Your task to perform on an android device: Show me popular games on the Play Store Image 0: 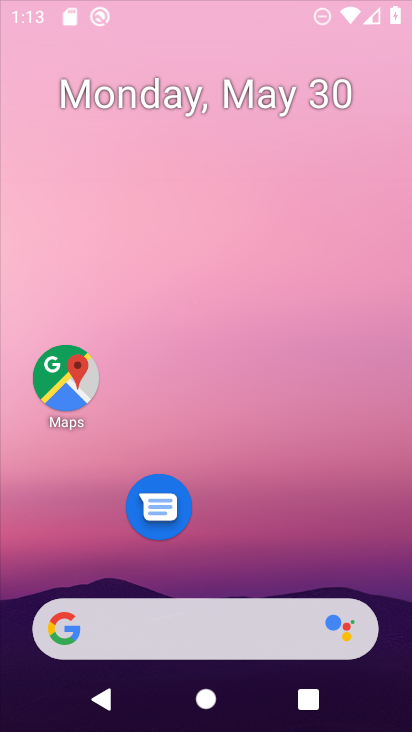
Step 0: click (311, 104)
Your task to perform on an android device: Show me popular games on the Play Store Image 1: 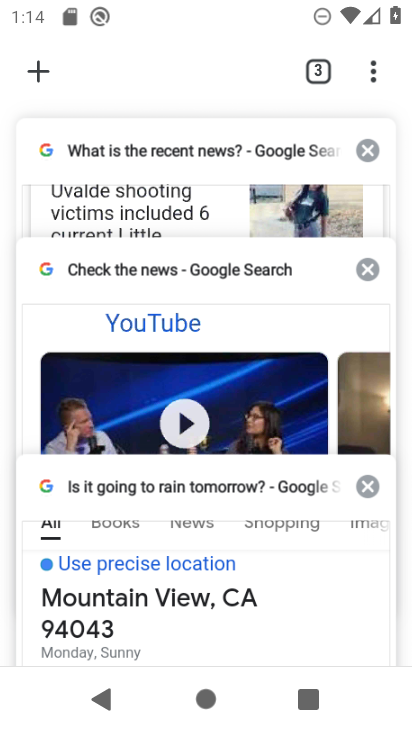
Step 1: press home button
Your task to perform on an android device: Show me popular games on the Play Store Image 2: 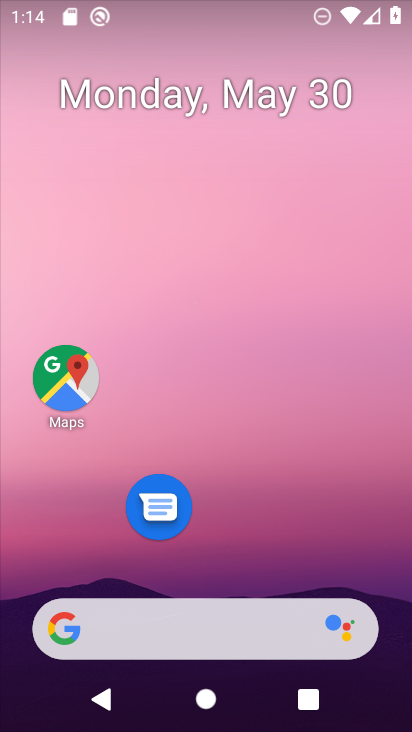
Step 2: drag from (250, 545) to (251, 66)
Your task to perform on an android device: Show me popular games on the Play Store Image 3: 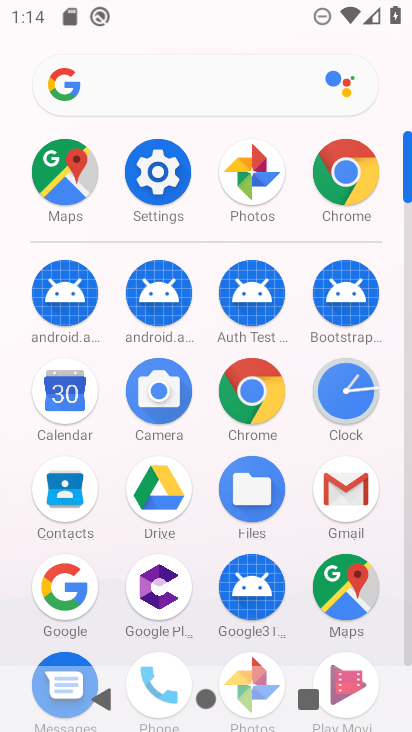
Step 3: click (411, 605)
Your task to perform on an android device: Show me popular games on the Play Store Image 4: 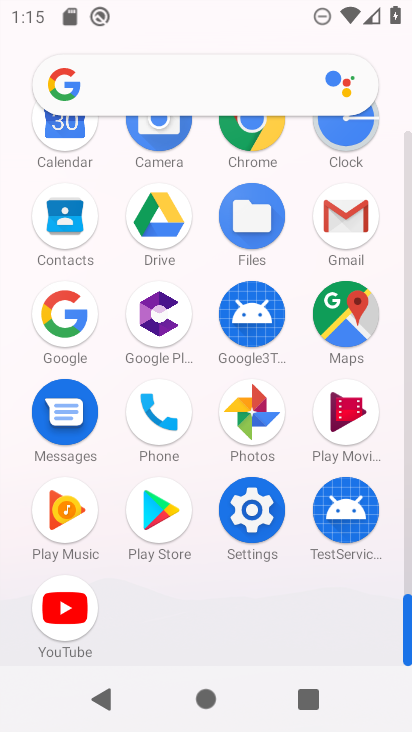
Step 4: click (142, 509)
Your task to perform on an android device: Show me popular games on the Play Store Image 5: 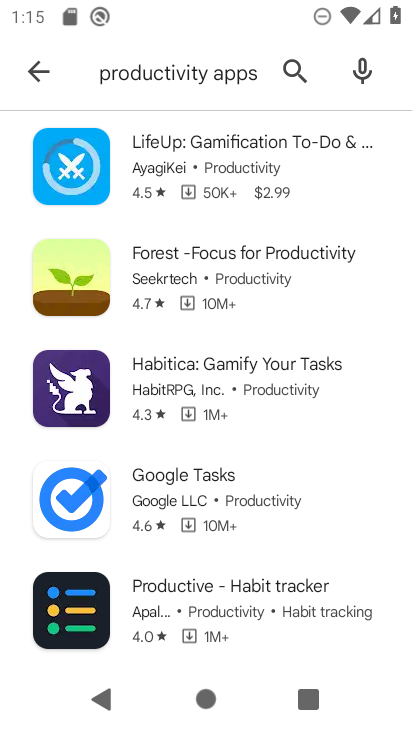
Step 5: click (304, 71)
Your task to perform on an android device: Show me popular games on the Play Store Image 6: 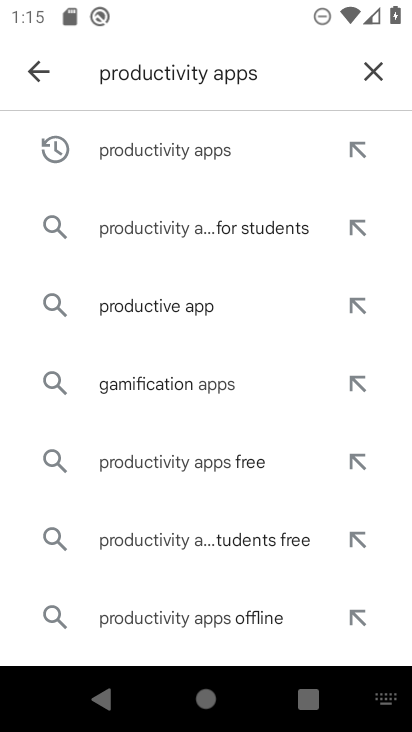
Step 6: click (366, 76)
Your task to perform on an android device: Show me popular games on the Play Store Image 7: 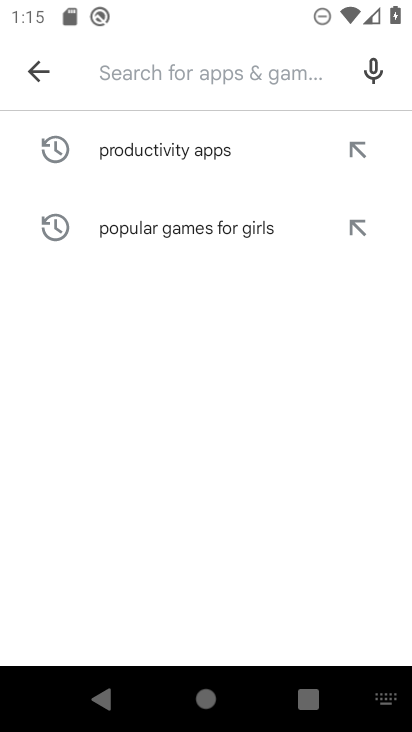
Step 7: type "popular games "
Your task to perform on an android device: Show me popular games on the Play Store Image 8: 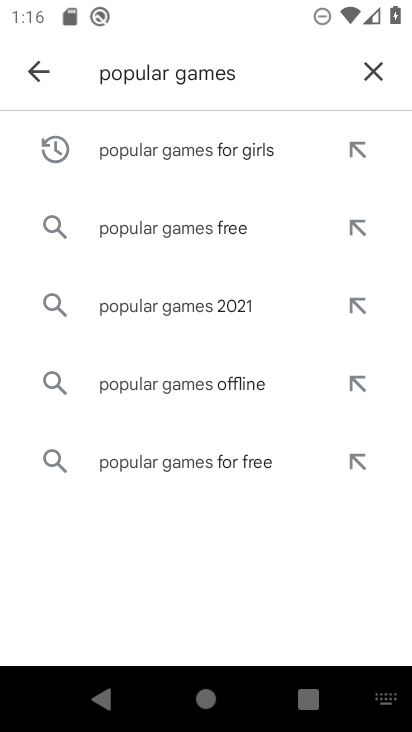
Step 8: click (179, 258)
Your task to perform on an android device: Show me popular games on the Play Store Image 9: 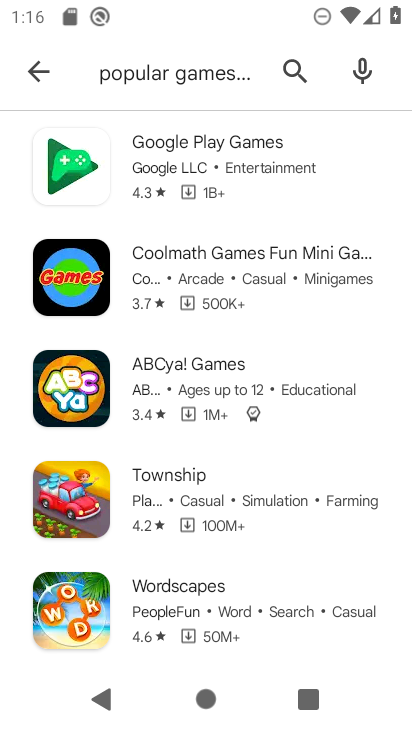
Step 9: task complete